Your task to perform on an android device: turn on notifications settings in the gmail app Image 0: 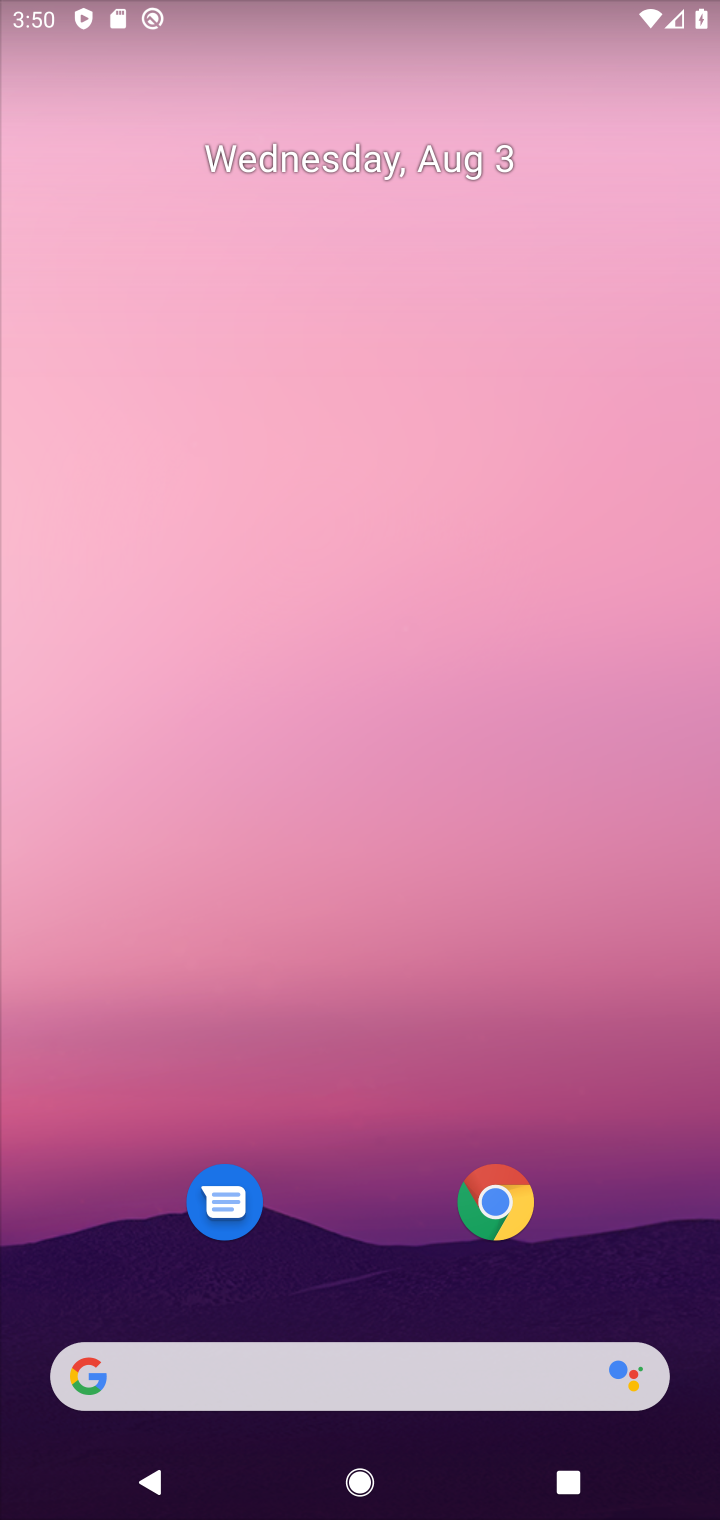
Step 0: drag from (428, 926) to (576, 51)
Your task to perform on an android device: turn on notifications settings in the gmail app Image 1: 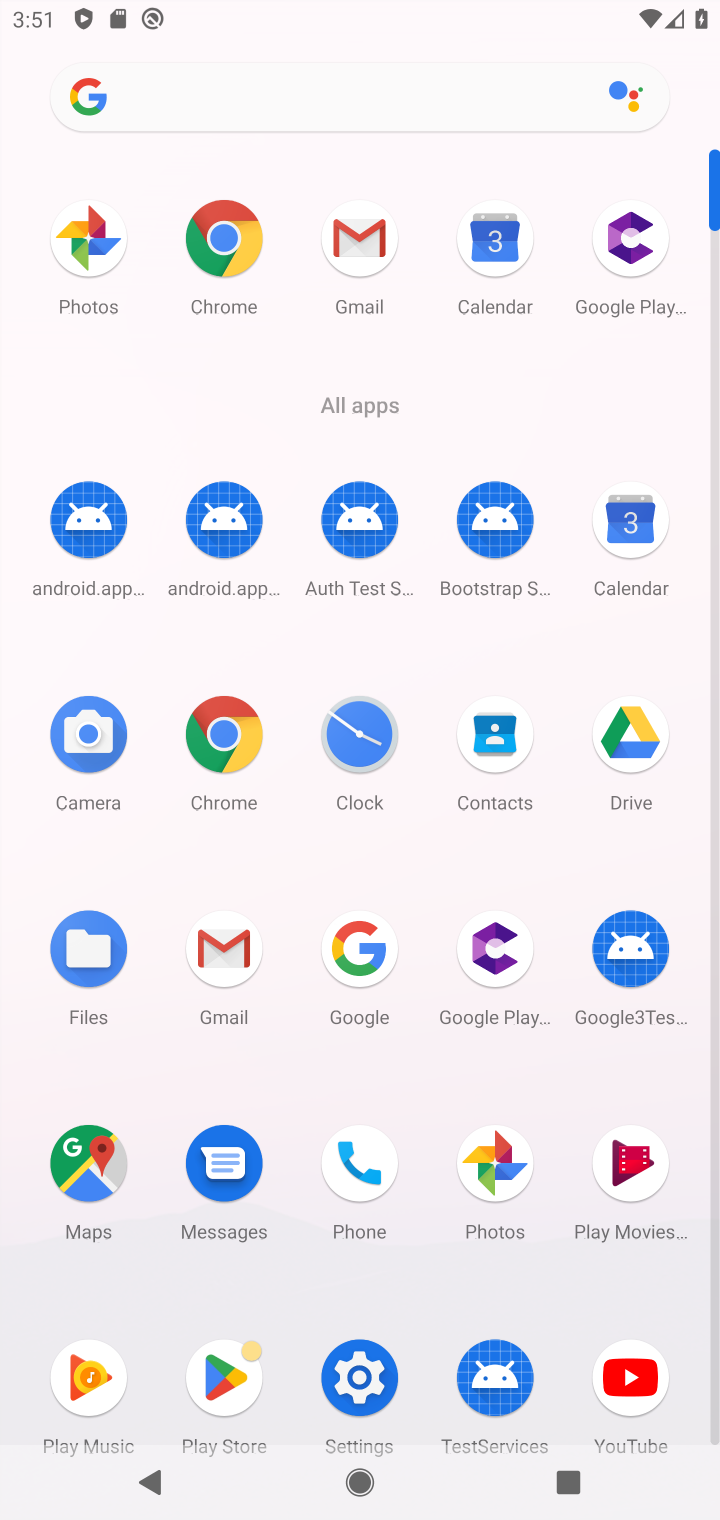
Step 1: click (354, 251)
Your task to perform on an android device: turn on notifications settings in the gmail app Image 2: 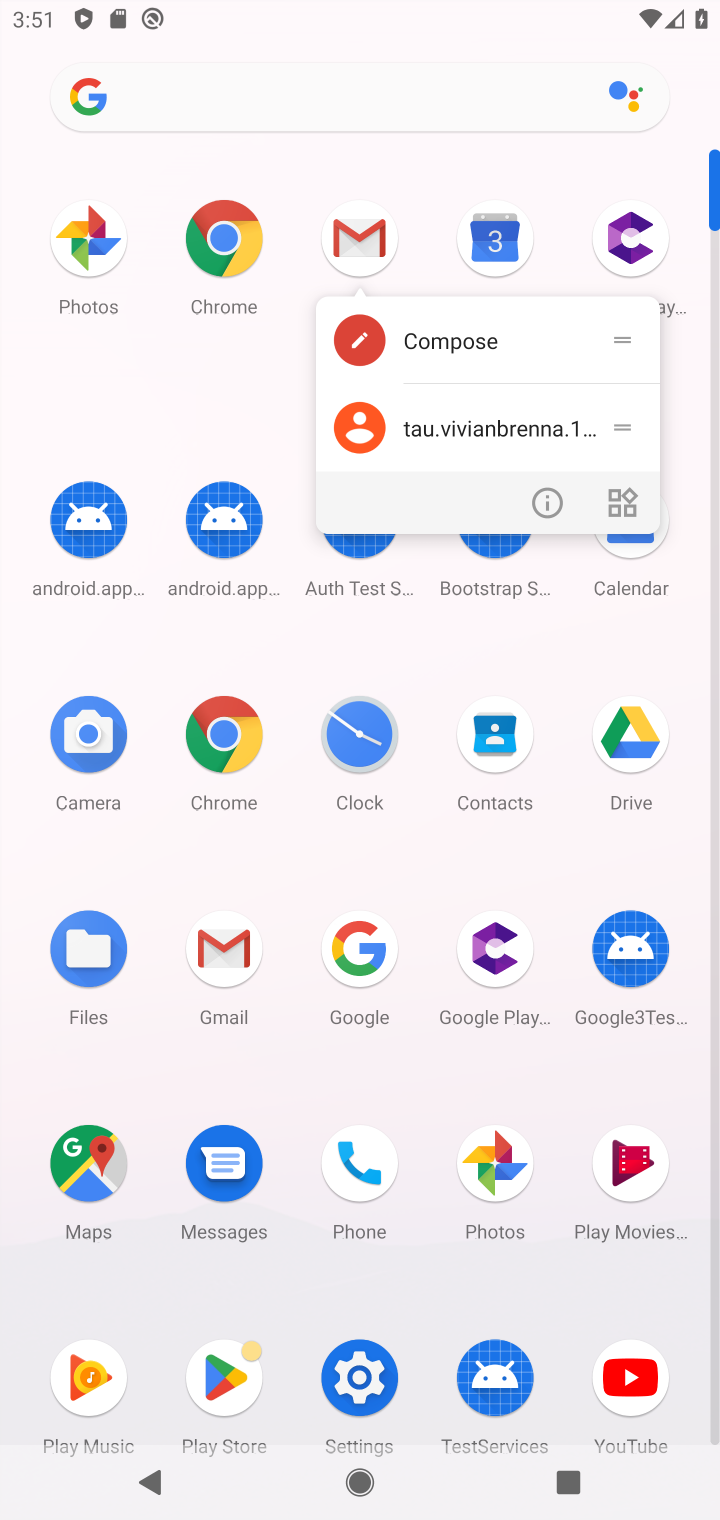
Step 2: click (536, 497)
Your task to perform on an android device: turn on notifications settings in the gmail app Image 3: 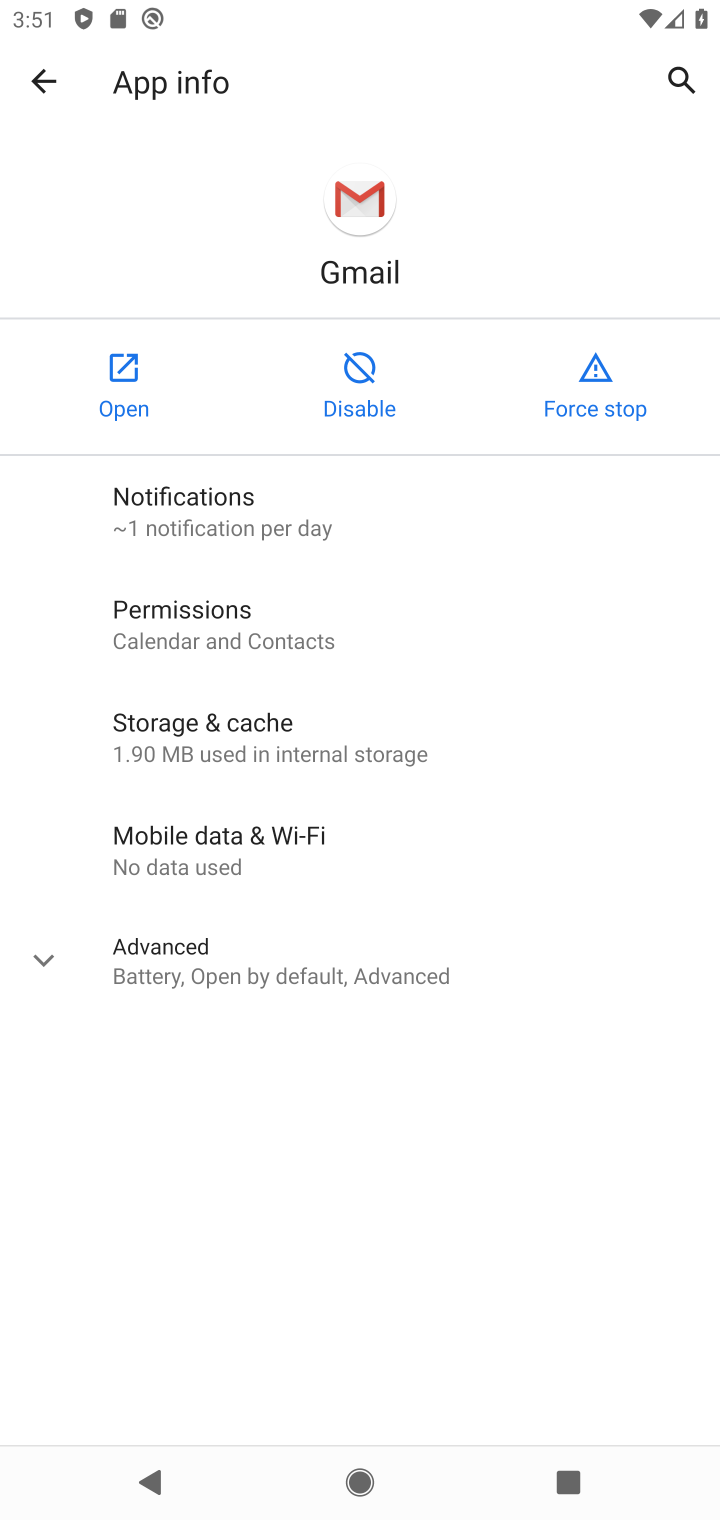
Step 3: click (256, 511)
Your task to perform on an android device: turn on notifications settings in the gmail app Image 4: 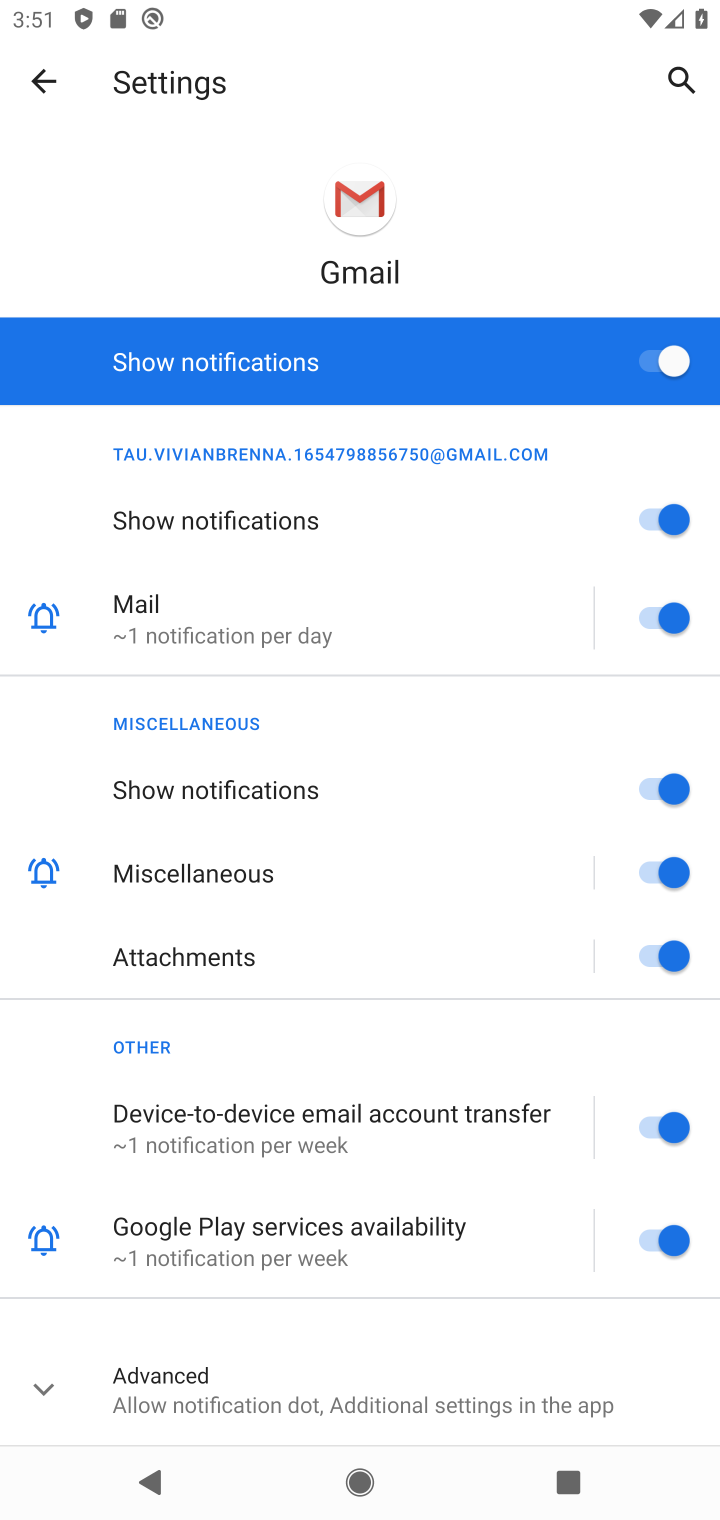
Step 4: task complete